Your task to perform on an android device: What's the weather? Image 0: 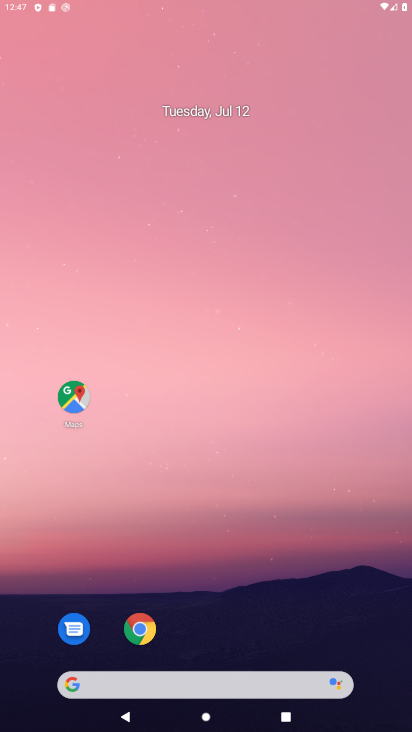
Step 0: drag from (210, 658) to (220, 23)
Your task to perform on an android device: What's the weather? Image 1: 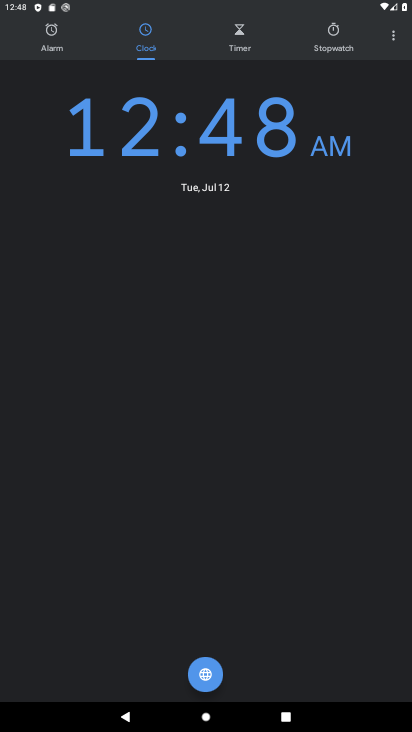
Step 1: press home button
Your task to perform on an android device: What's the weather? Image 2: 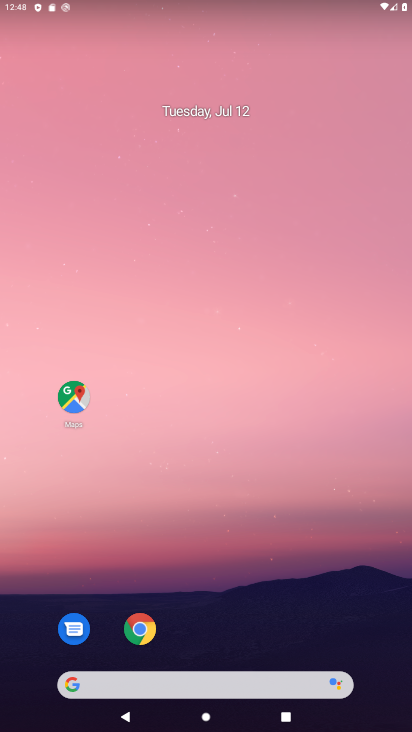
Step 2: click (213, 679)
Your task to perform on an android device: What's the weather? Image 3: 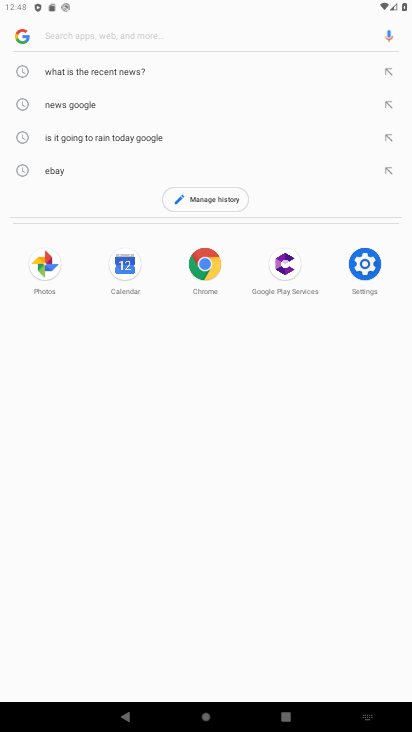
Step 3: type "weather"
Your task to perform on an android device: What's the weather? Image 4: 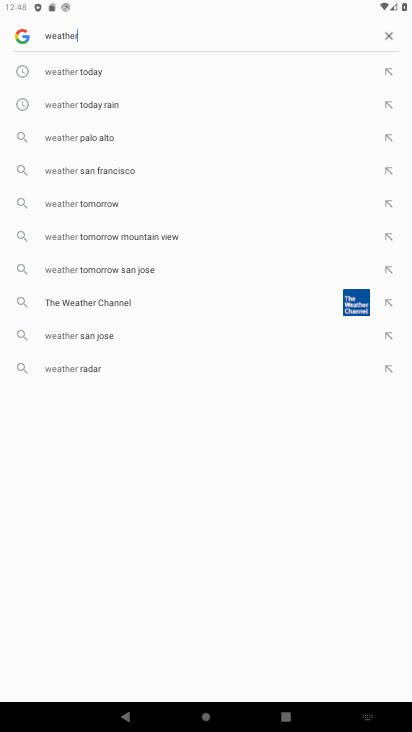
Step 4: click (89, 67)
Your task to perform on an android device: What's the weather? Image 5: 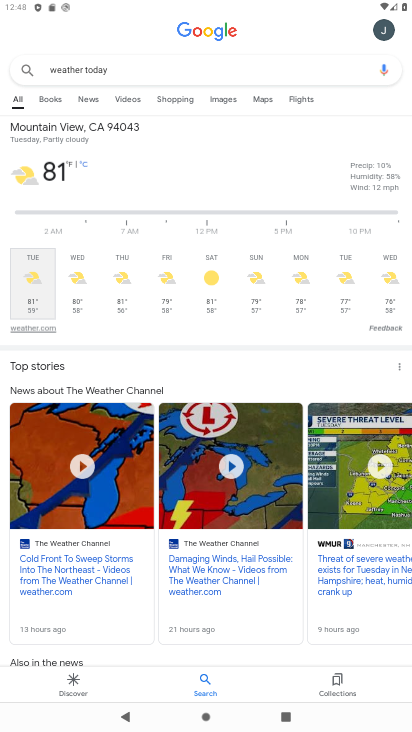
Step 5: task complete